Your task to perform on an android device: Open settings on Google Maps Image 0: 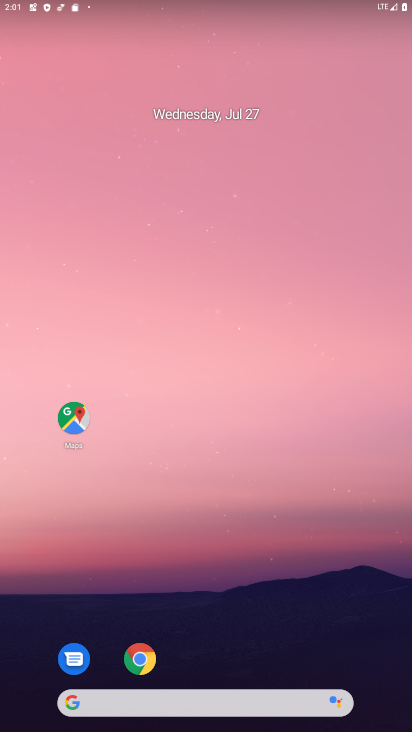
Step 0: drag from (207, 651) to (206, 92)
Your task to perform on an android device: Open settings on Google Maps Image 1: 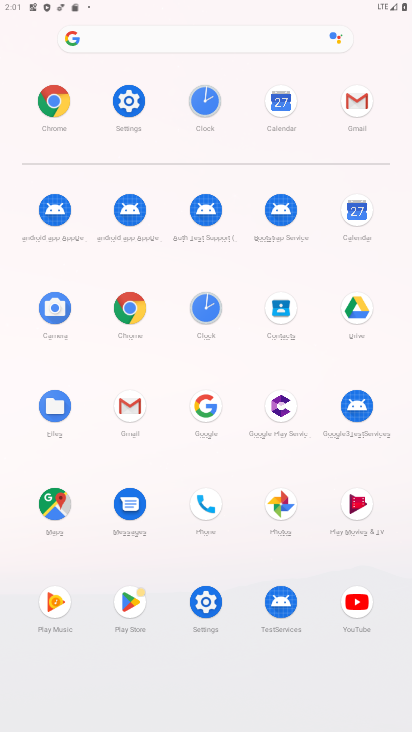
Step 1: click (55, 501)
Your task to perform on an android device: Open settings on Google Maps Image 2: 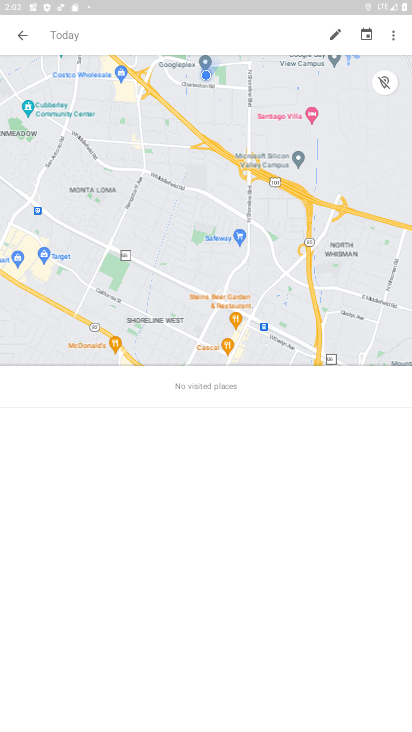
Step 2: click (21, 35)
Your task to perform on an android device: Open settings on Google Maps Image 3: 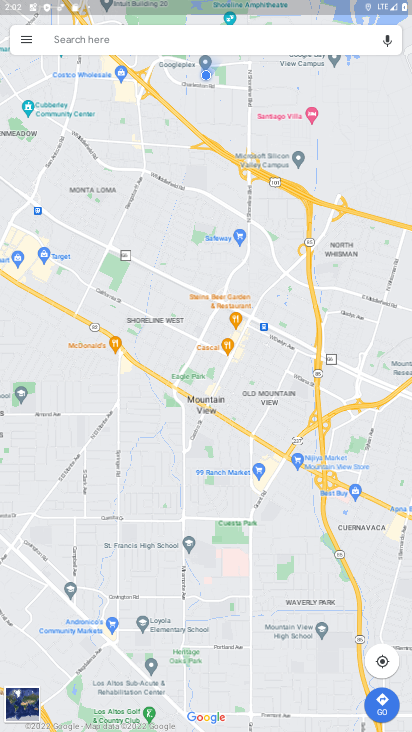
Step 3: click (24, 35)
Your task to perform on an android device: Open settings on Google Maps Image 4: 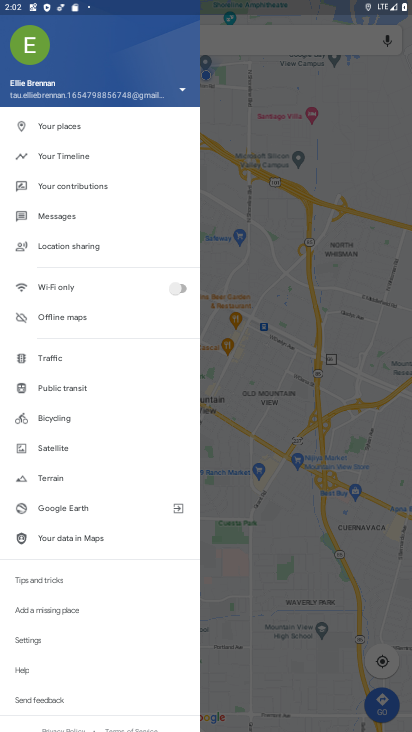
Step 4: click (39, 639)
Your task to perform on an android device: Open settings on Google Maps Image 5: 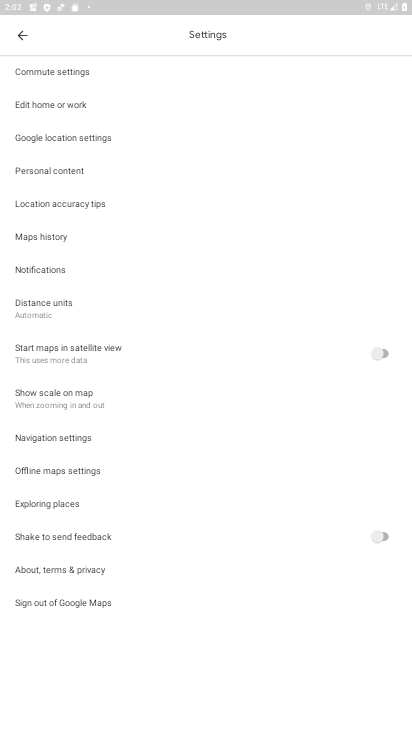
Step 5: task complete